Your task to perform on an android device: turn on the 24-hour format for clock Image 0: 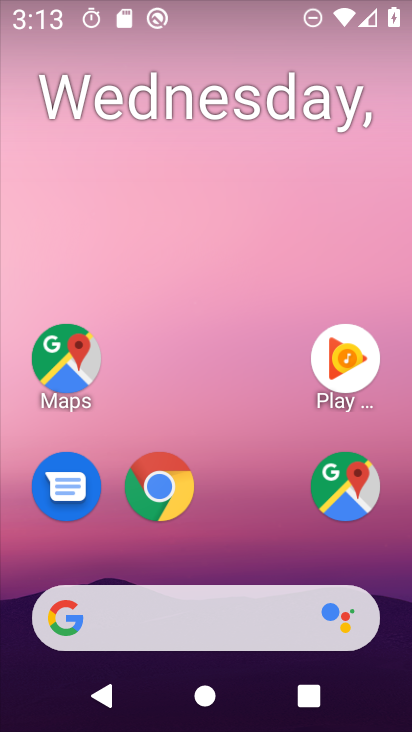
Step 0: drag from (257, 557) to (262, 220)
Your task to perform on an android device: turn on the 24-hour format for clock Image 1: 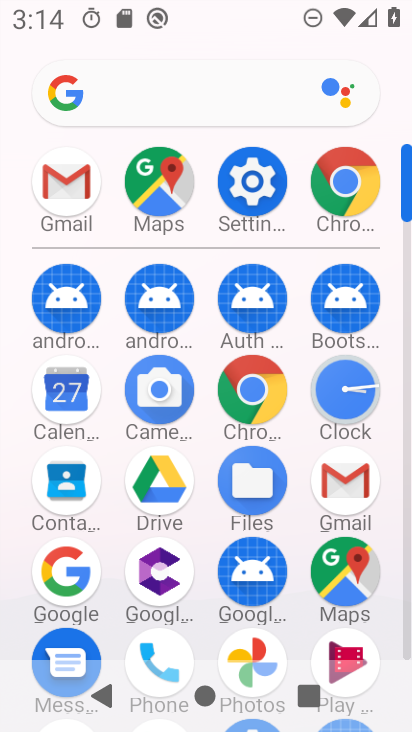
Step 1: click (355, 391)
Your task to perform on an android device: turn on the 24-hour format for clock Image 2: 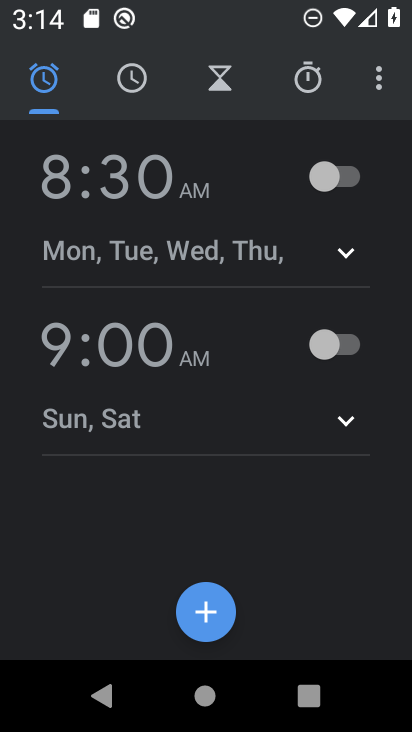
Step 2: click (379, 86)
Your task to perform on an android device: turn on the 24-hour format for clock Image 3: 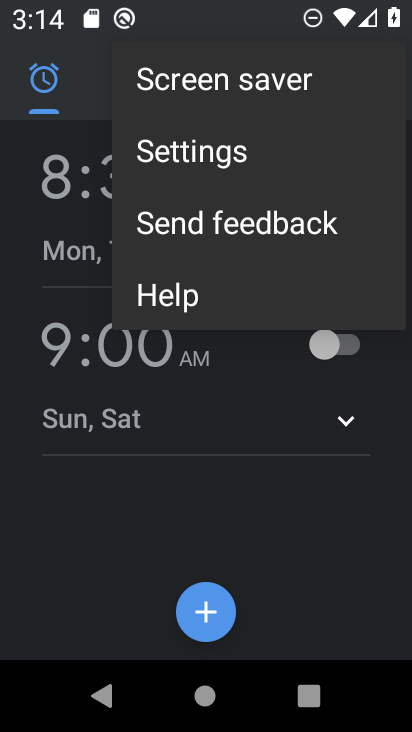
Step 3: click (271, 155)
Your task to perform on an android device: turn on the 24-hour format for clock Image 4: 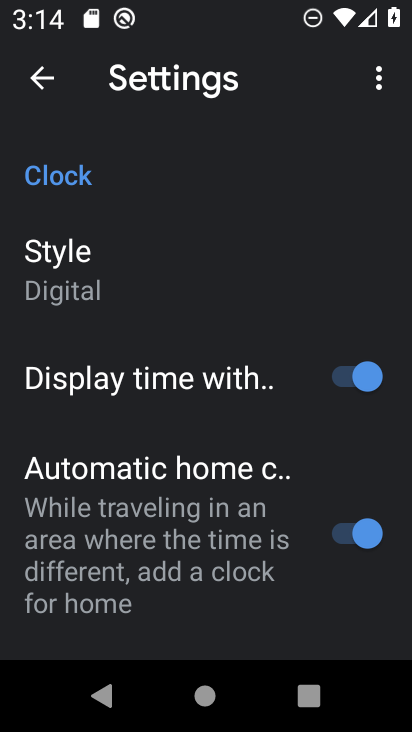
Step 4: drag from (286, 445) to (281, 327)
Your task to perform on an android device: turn on the 24-hour format for clock Image 5: 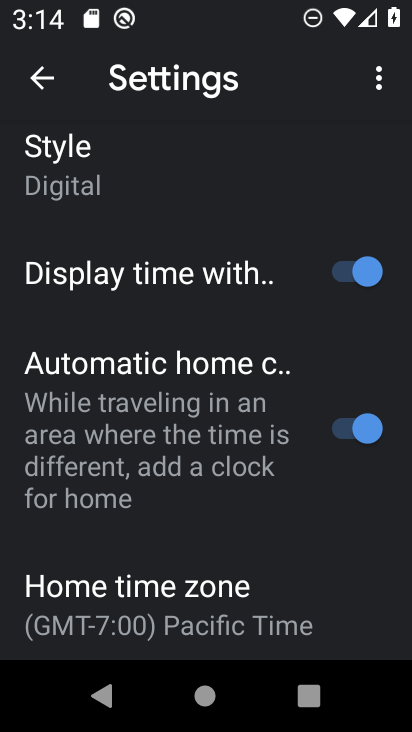
Step 5: drag from (278, 437) to (278, 310)
Your task to perform on an android device: turn on the 24-hour format for clock Image 6: 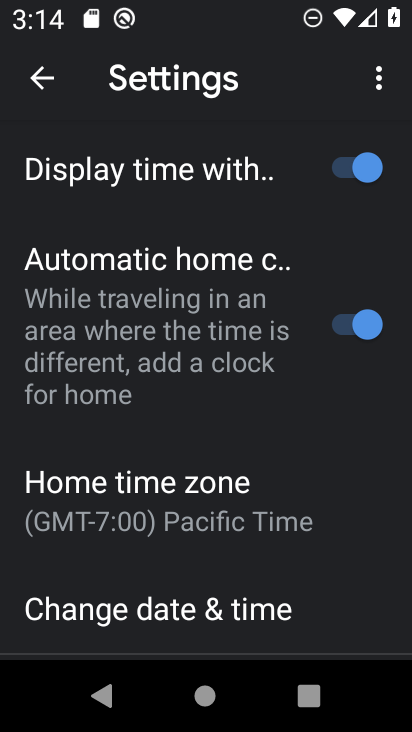
Step 6: drag from (311, 484) to (303, 395)
Your task to perform on an android device: turn on the 24-hour format for clock Image 7: 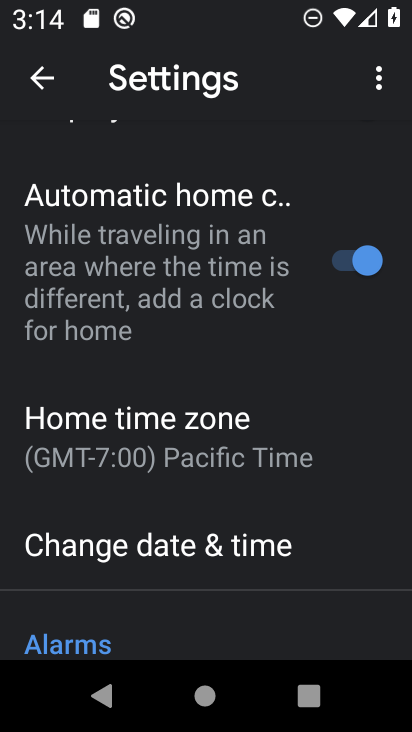
Step 7: drag from (327, 525) to (320, 441)
Your task to perform on an android device: turn on the 24-hour format for clock Image 8: 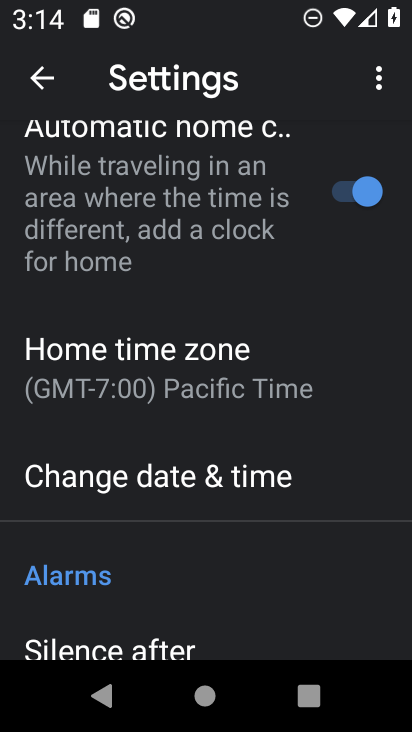
Step 8: drag from (303, 531) to (303, 441)
Your task to perform on an android device: turn on the 24-hour format for clock Image 9: 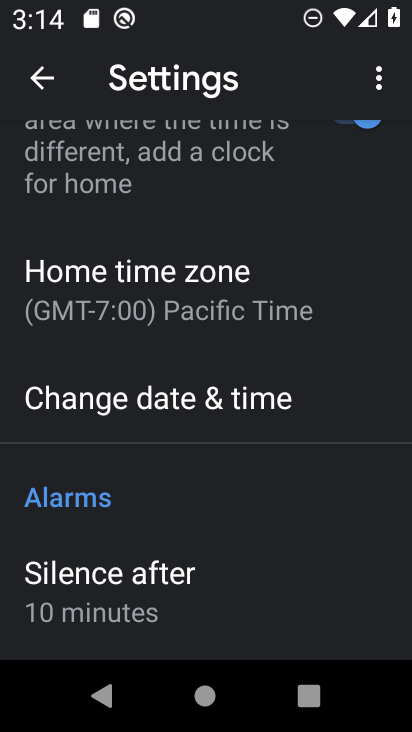
Step 9: drag from (306, 542) to (309, 451)
Your task to perform on an android device: turn on the 24-hour format for clock Image 10: 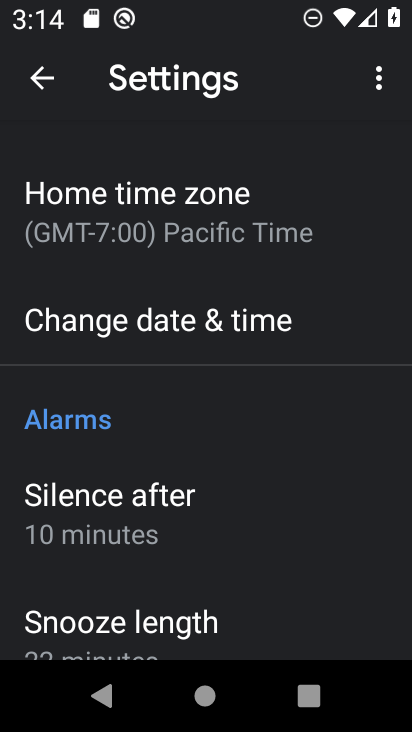
Step 10: drag from (293, 536) to (290, 448)
Your task to perform on an android device: turn on the 24-hour format for clock Image 11: 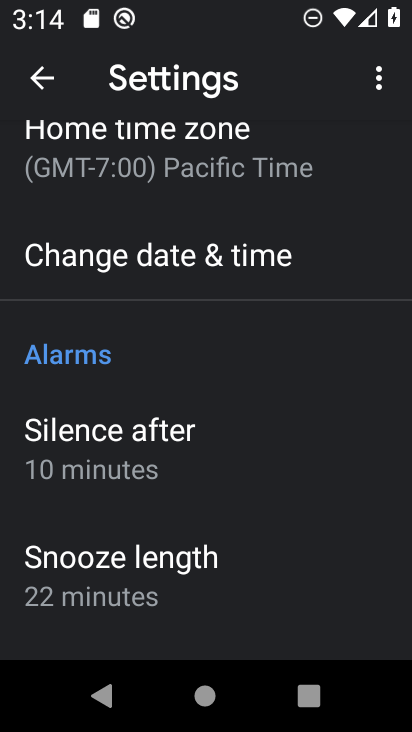
Step 11: drag from (291, 547) to (290, 448)
Your task to perform on an android device: turn on the 24-hour format for clock Image 12: 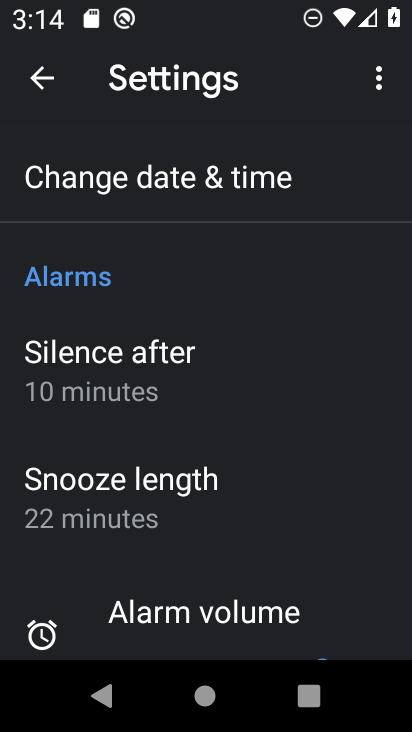
Step 12: click (265, 196)
Your task to perform on an android device: turn on the 24-hour format for clock Image 13: 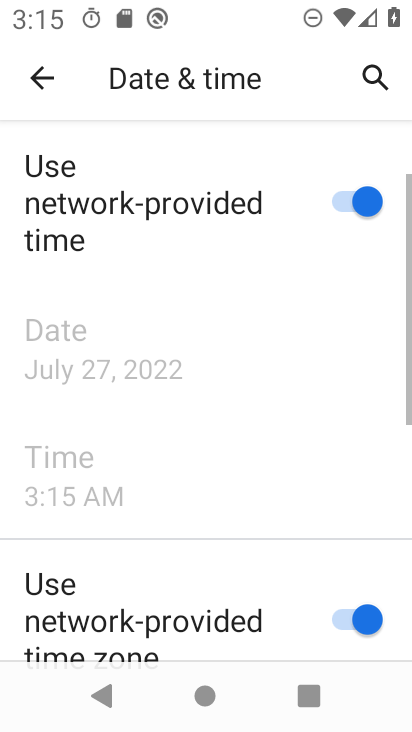
Step 13: drag from (290, 559) to (280, 443)
Your task to perform on an android device: turn on the 24-hour format for clock Image 14: 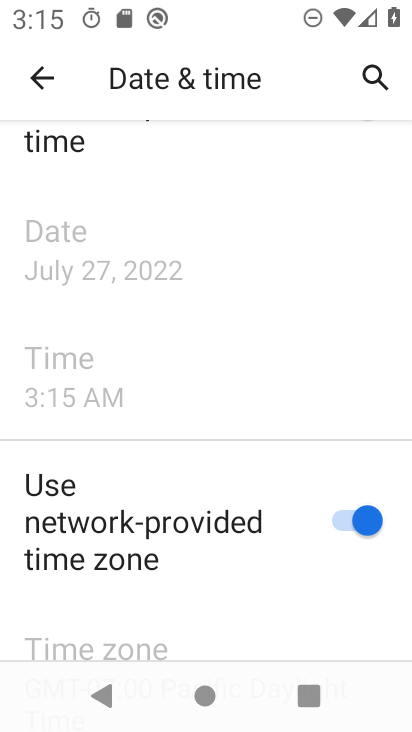
Step 14: drag from (299, 568) to (271, 438)
Your task to perform on an android device: turn on the 24-hour format for clock Image 15: 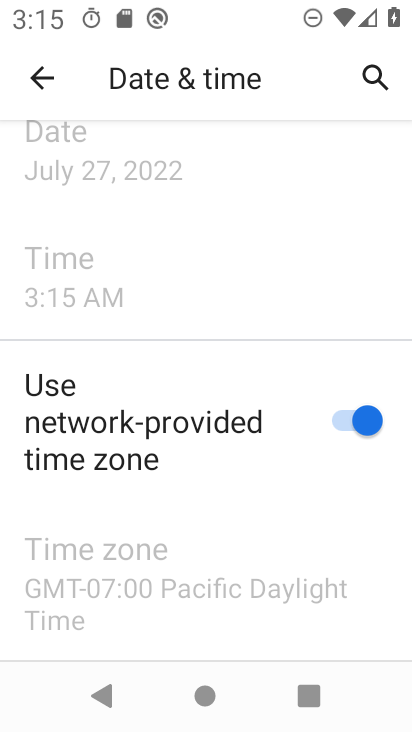
Step 15: drag from (258, 483) to (237, 236)
Your task to perform on an android device: turn on the 24-hour format for clock Image 16: 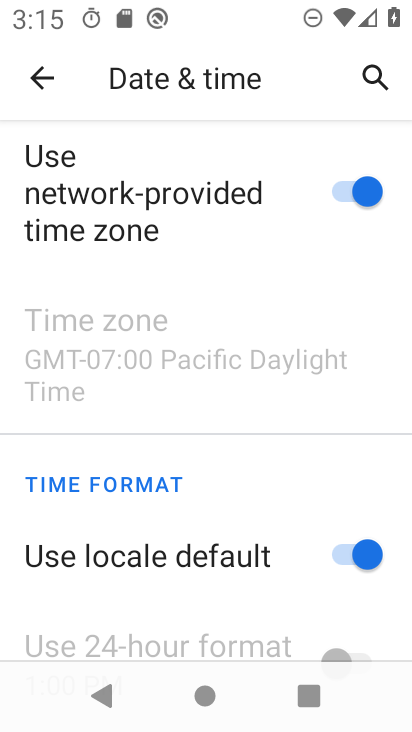
Step 16: drag from (233, 585) to (213, 431)
Your task to perform on an android device: turn on the 24-hour format for clock Image 17: 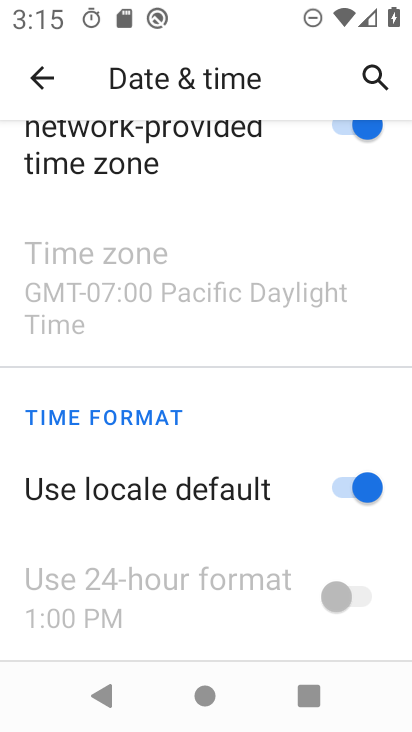
Step 17: click (352, 482)
Your task to perform on an android device: turn on the 24-hour format for clock Image 18: 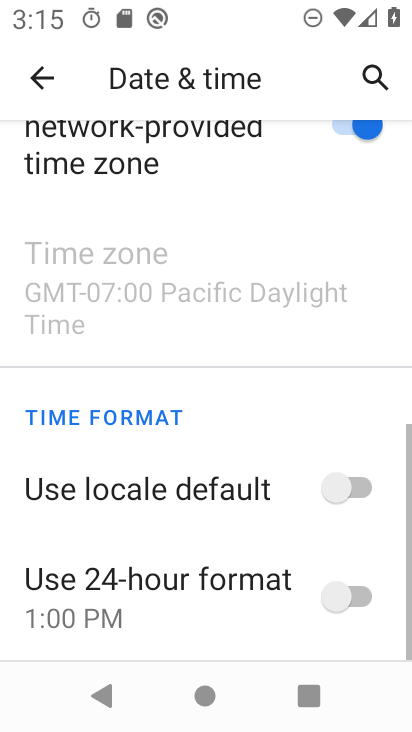
Step 18: click (343, 591)
Your task to perform on an android device: turn on the 24-hour format for clock Image 19: 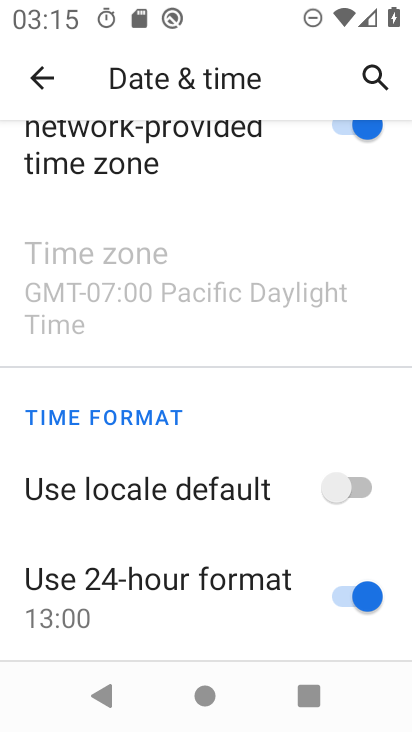
Step 19: task complete